Your task to perform on an android device: Open the web browser Image 0: 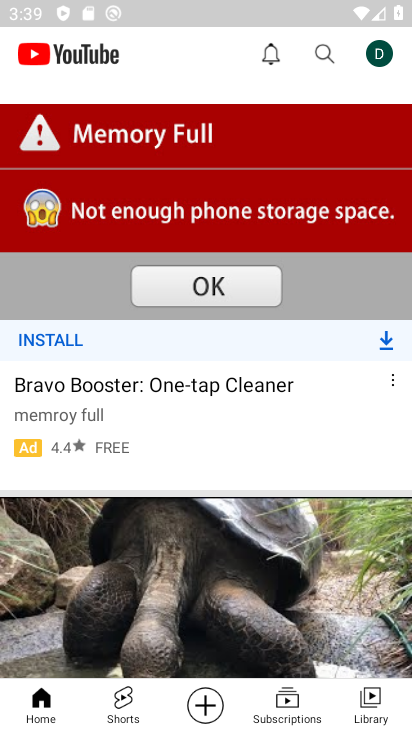
Step 0: press home button
Your task to perform on an android device: Open the web browser Image 1: 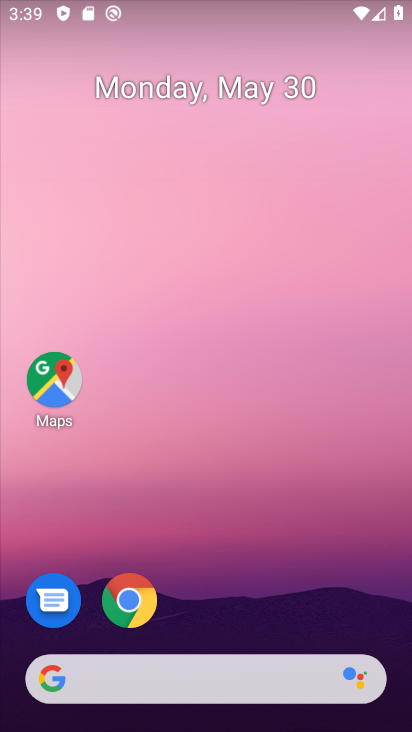
Step 1: click (137, 593)
Your task to perform on an android device: Open the web browser Image 2: 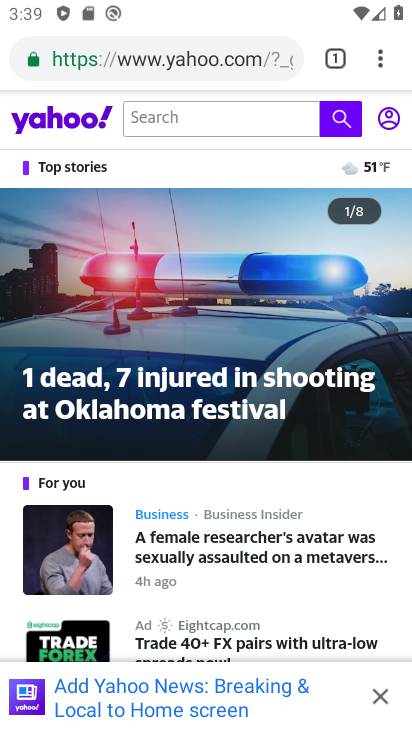
Step 2: task complete